Your task to perform on an android device: Do I have any events today? Image 0: 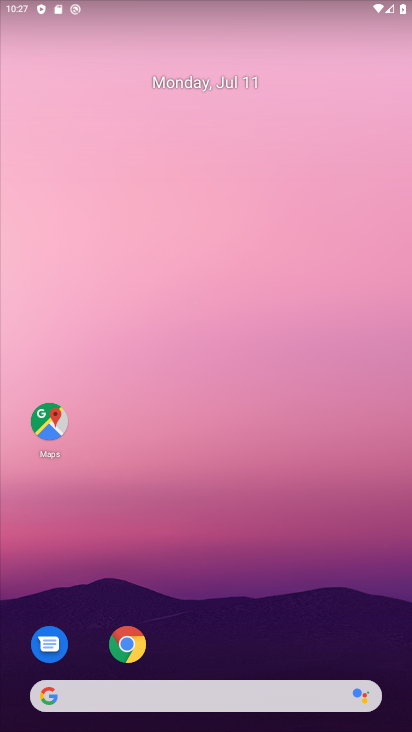
Step 0: click (263, 509)
Your task to perform on an android device: Do I have any events today? Image 1: 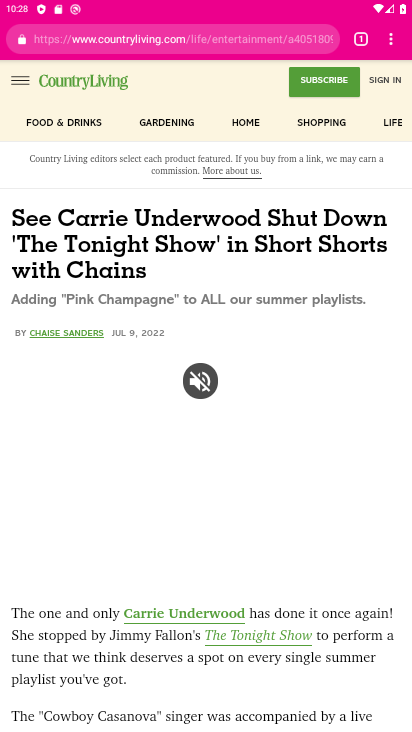
Step 1: press home button
Your task to perform on an android device: Do I have any events today? Image 2: 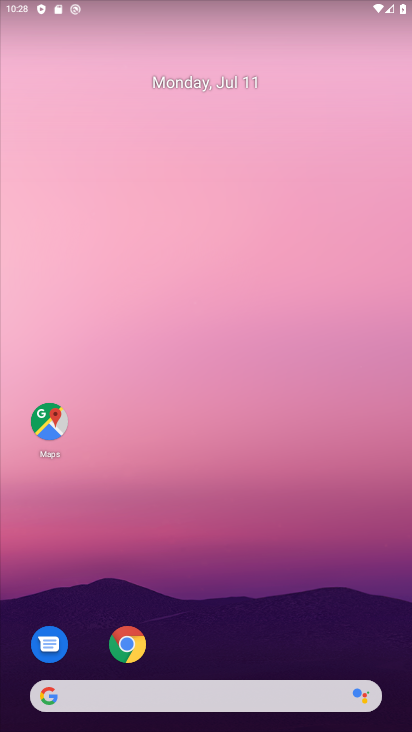
Step 2: drag from (259, 654) to (312, 12)
Your task to perform on an android device: Do I have any events today? Image 3: 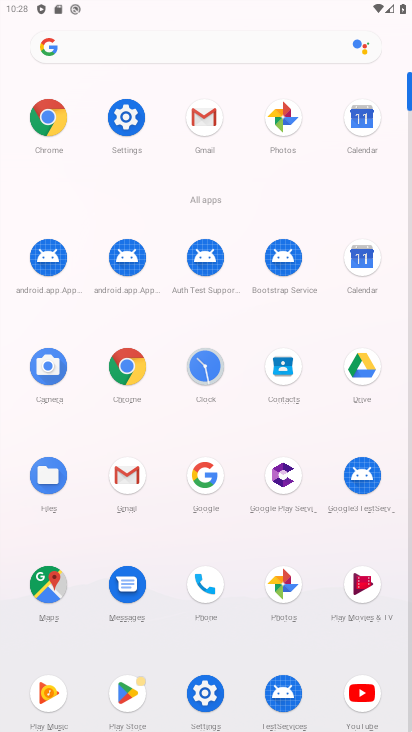
Step 3: click (354, 262)
Your task to perform on an android device: Do I have any events today? Image 4: 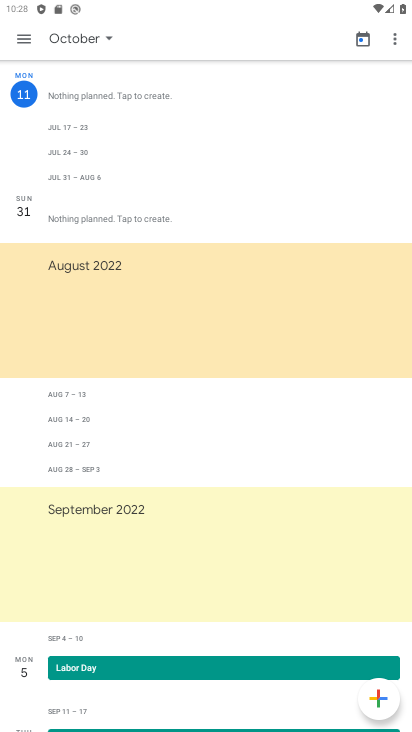
Step 4: click (29, 35)
Your task to perform on an android device: Do I have any events today? Image 5: 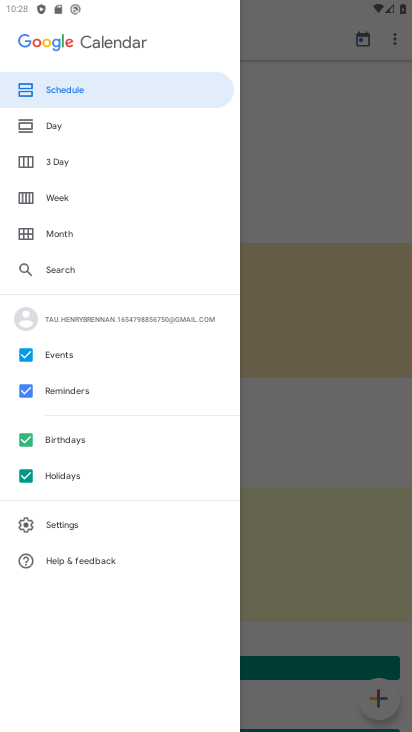
Step 5: click (80, 387)
Your task to perform on an android device: Do I have any events today? Image 6: 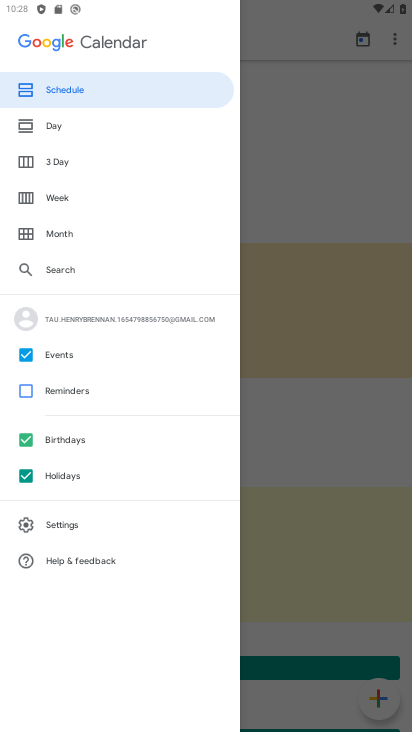
Step 6: click (55, 436)
Your task to perform on an android device: Do I have any events today? Image 7: 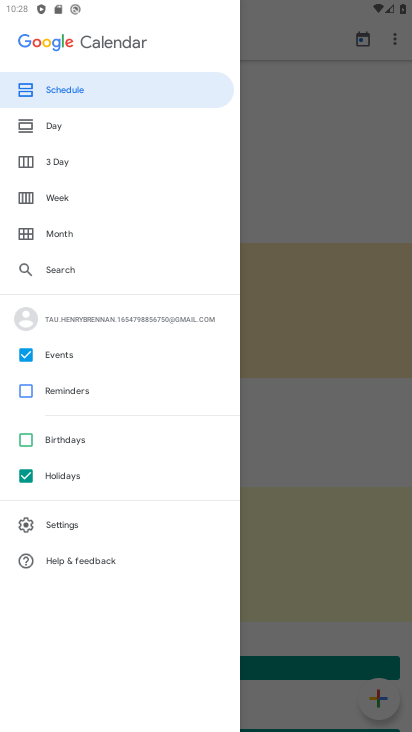
Step 7: click (61, 472)
Your task to perform on an android device: Do I have any events today? Image 8: 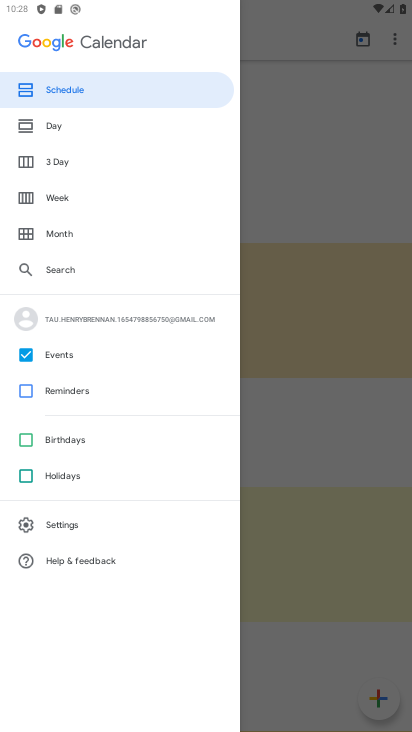
Step 8: click (66, 141)
Your task to perform on an android device: Do I have any events today? Image 9: 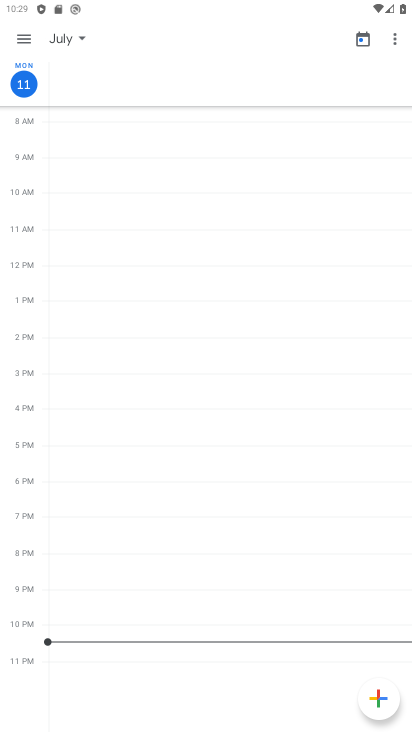
Step 9: task complete